Your task to perform on an android device: Open my contact list Image 0: 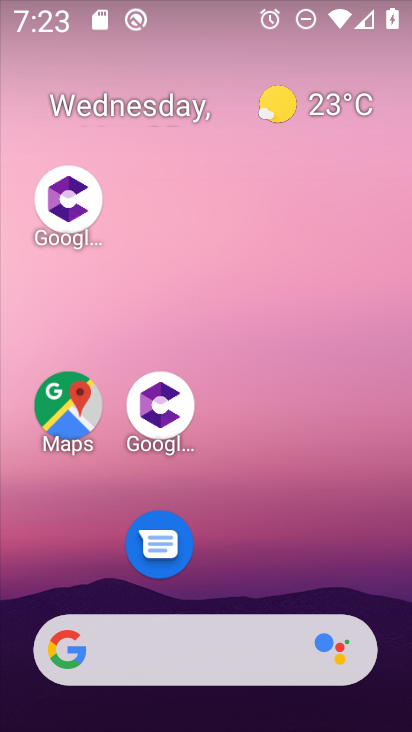
Step 0: press home button
Your task to perform on an android device: Open my contact list Image 1: 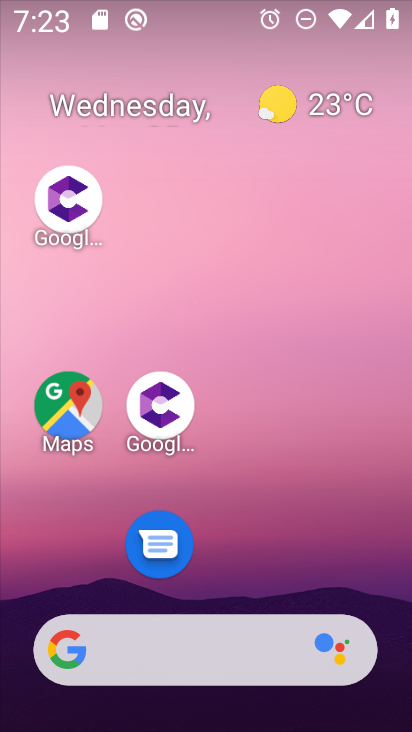
Step 1: drag from (313, 518) to (196, 94)
Your task to perform on an android device: Open my contact list Image 2: 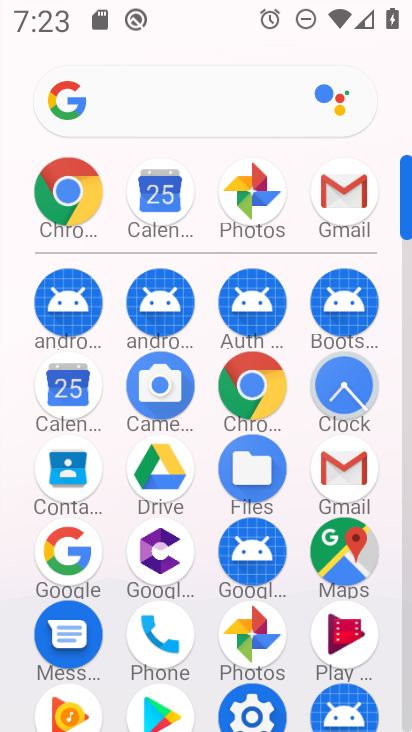
Step 2: click (63, 467)
Your task to perform on an android device: Open my contact list Image 3: 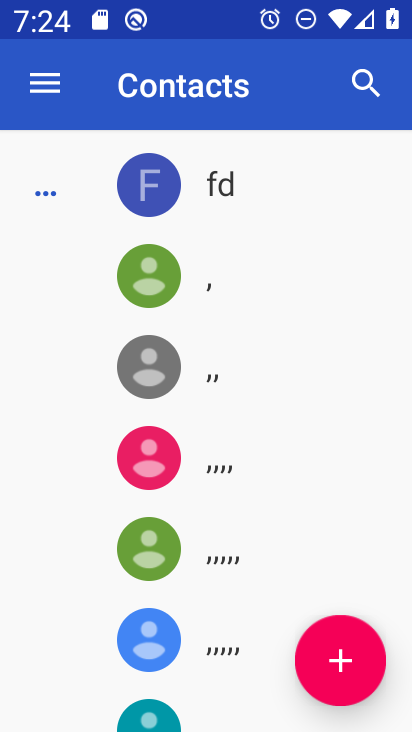
Step 3: task complete